Your task to perform on an android device: delete the emails in spam in the gmail app Image 0: 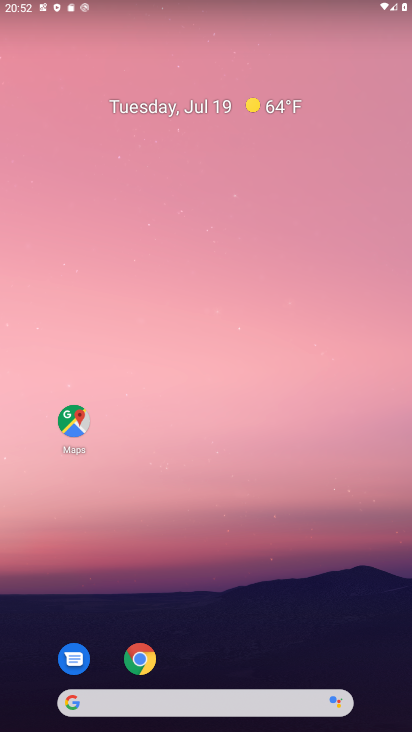
Step 0: drag from (206, 653) to (289, 106)
Your task to perform on an android device: delete the emails in spam in the gmail app Image 1: 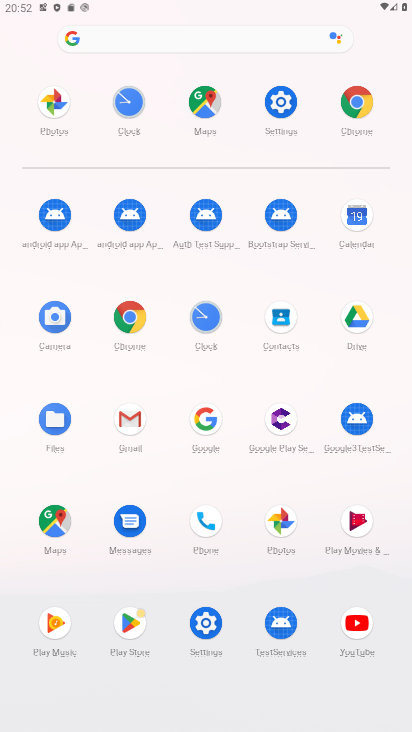
Step 1: click (139, 419)
Your task to perform on an android device: delete the emails in spam in the gmail app Image 2: 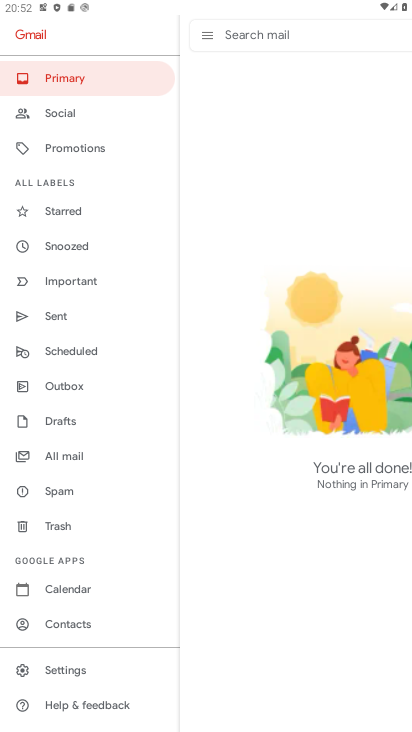
Step 2: click (69, 489)
Your task to perform on an android device: delete the emails in spam in the gmail app Image 3: 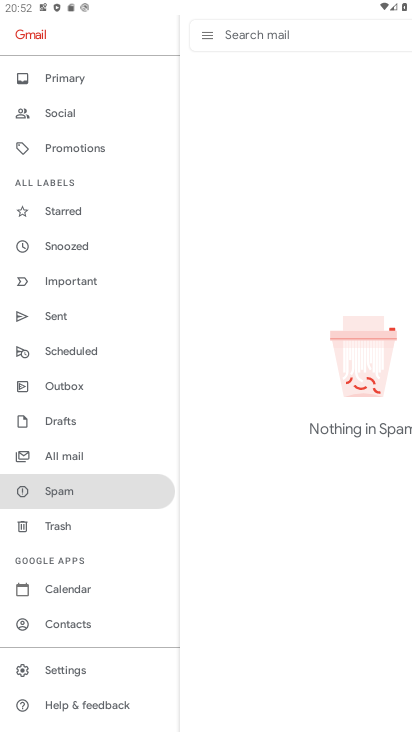
Step 3: task complete